Your task to perform on an android device: Show the shopping cart on bestbuy.com. Image 0: 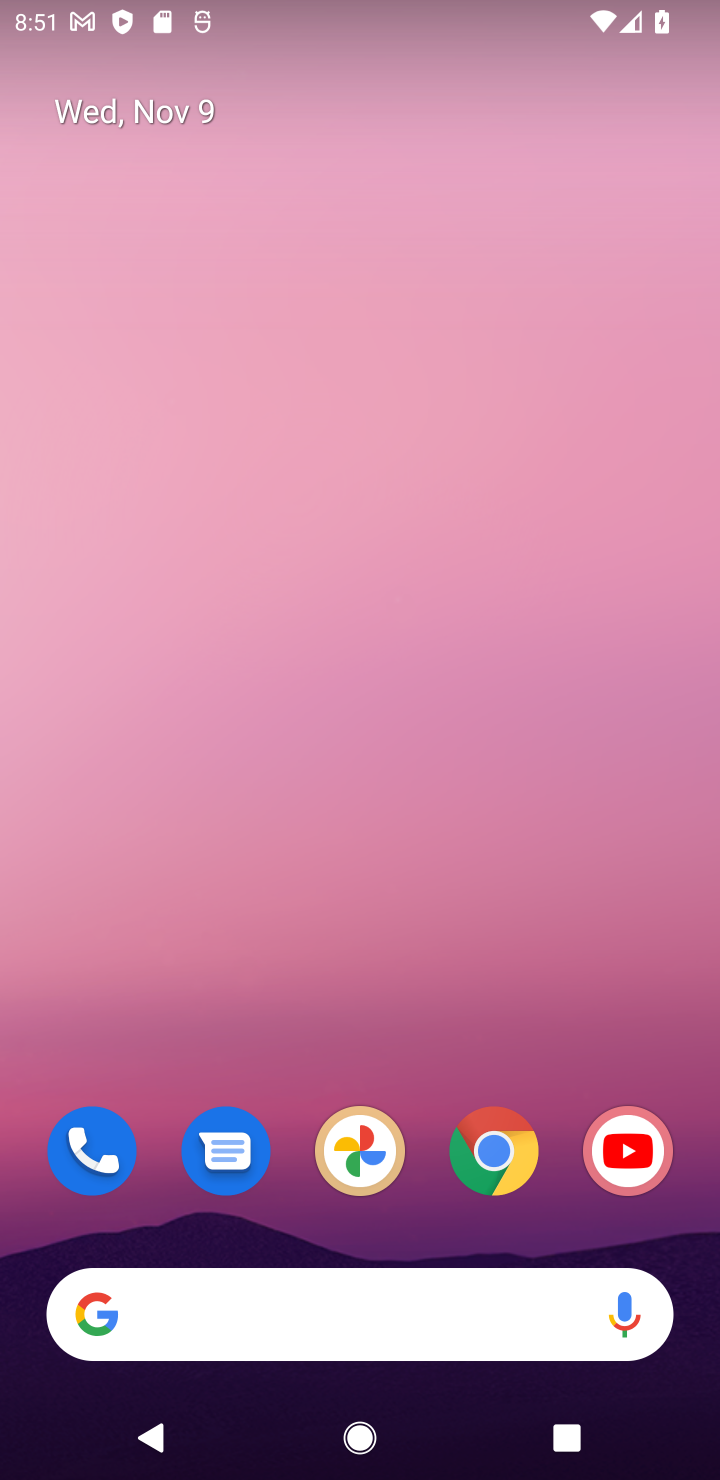
Step 0: click (494, 1162)
Your task to perform on an android device: Show the shopping cart on bestbuy.com. Image 1: 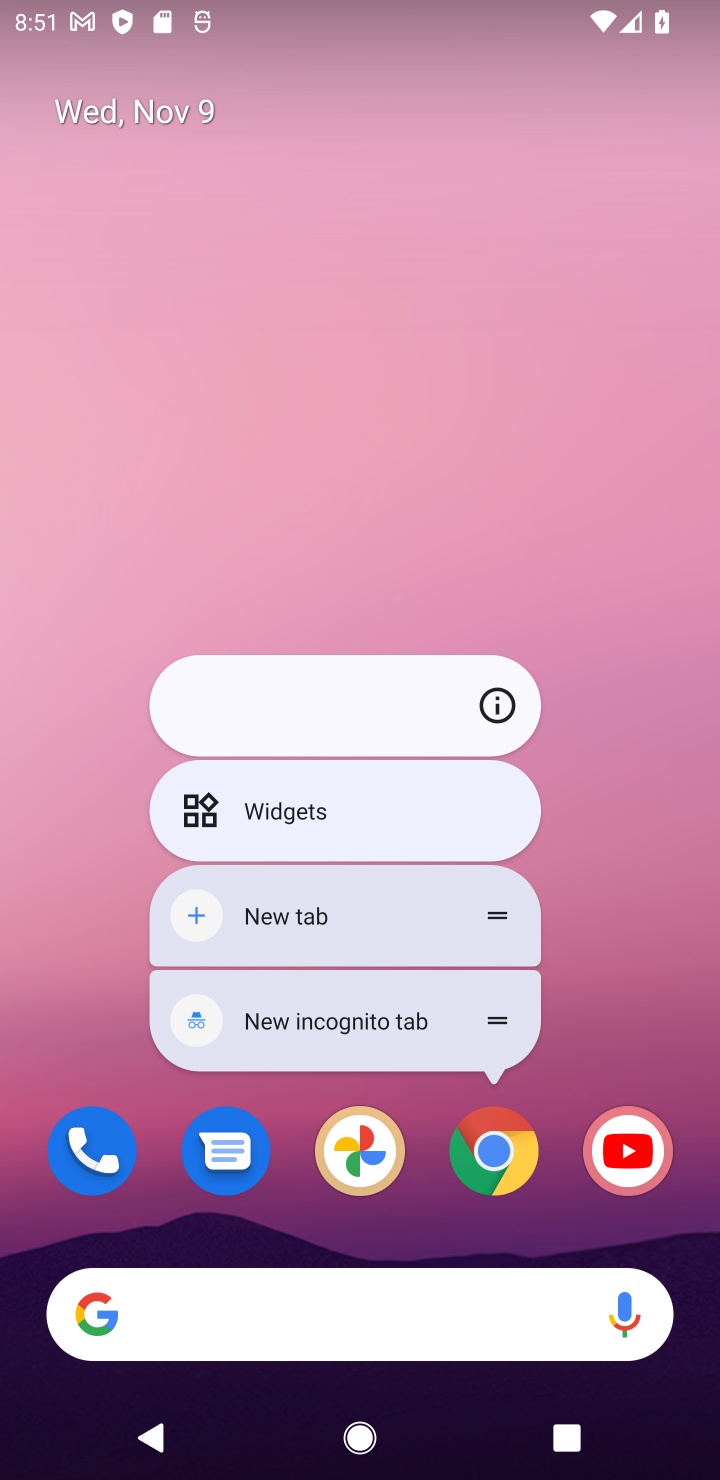
Step 1: click (507, 1181)
Your task to perform on an android device: Show the shopping cart on bestbuy.com. Image 2: 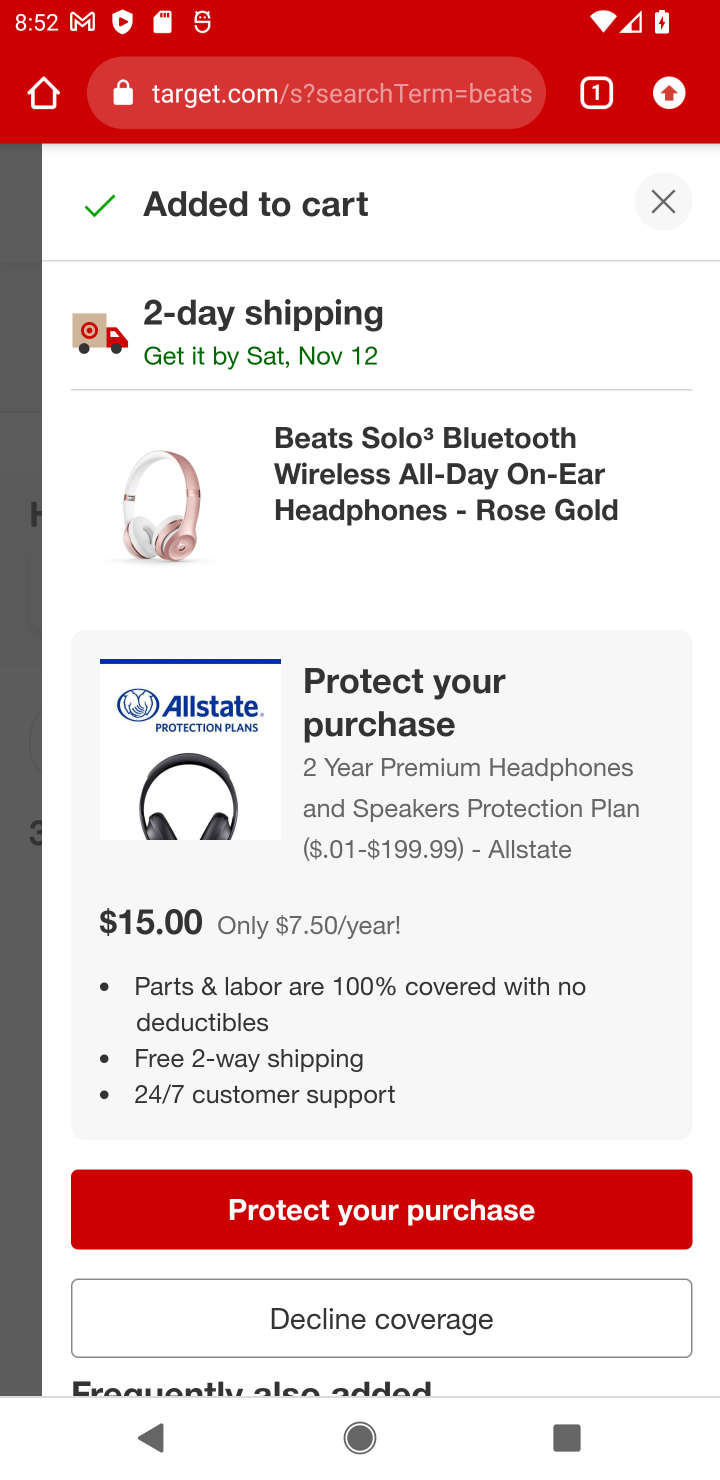
Step 2: click (342, 94)
Your task to perform on an android device: Show the shopping cart on bestbuy.com. Image 3: 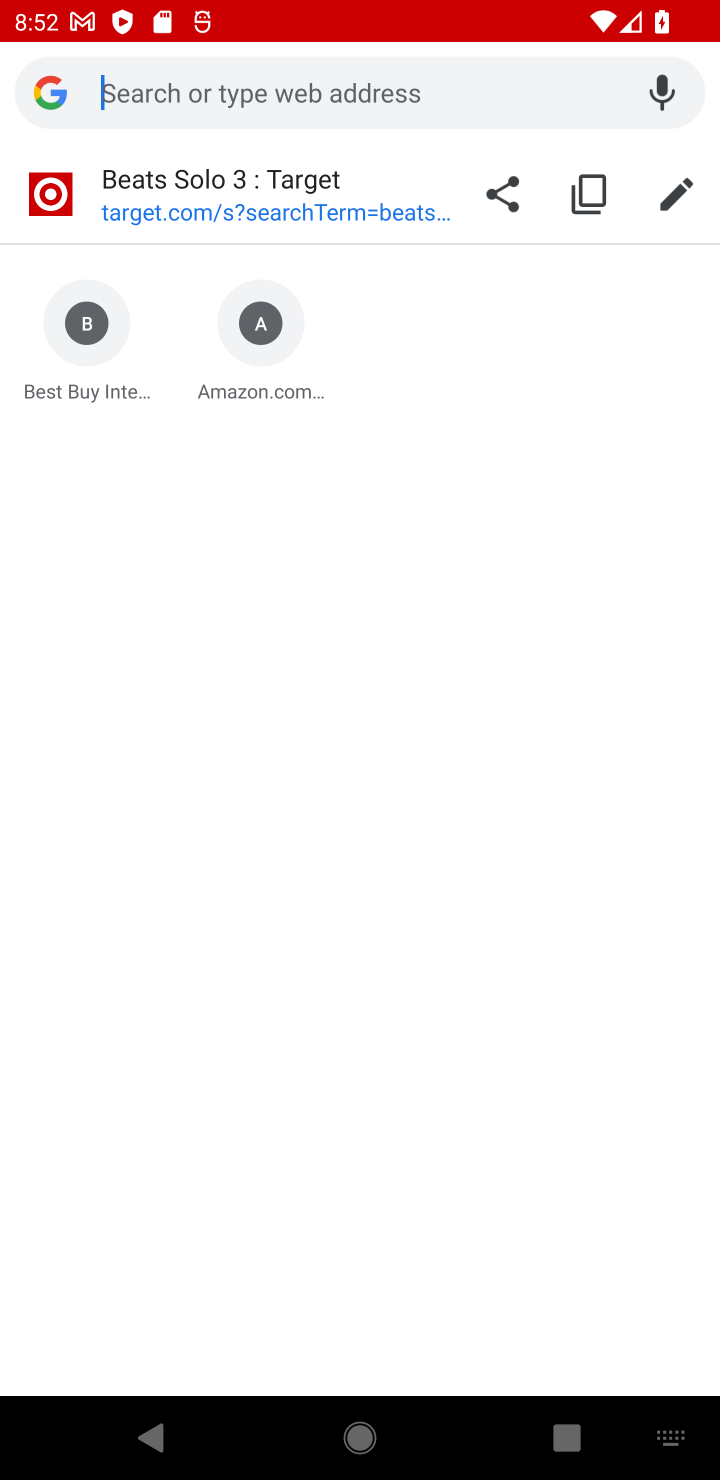
Step 3: type "bestbuy.com"
Your task to perform on an android device: Show the shopping cart on bestbuy.com. Image 4: 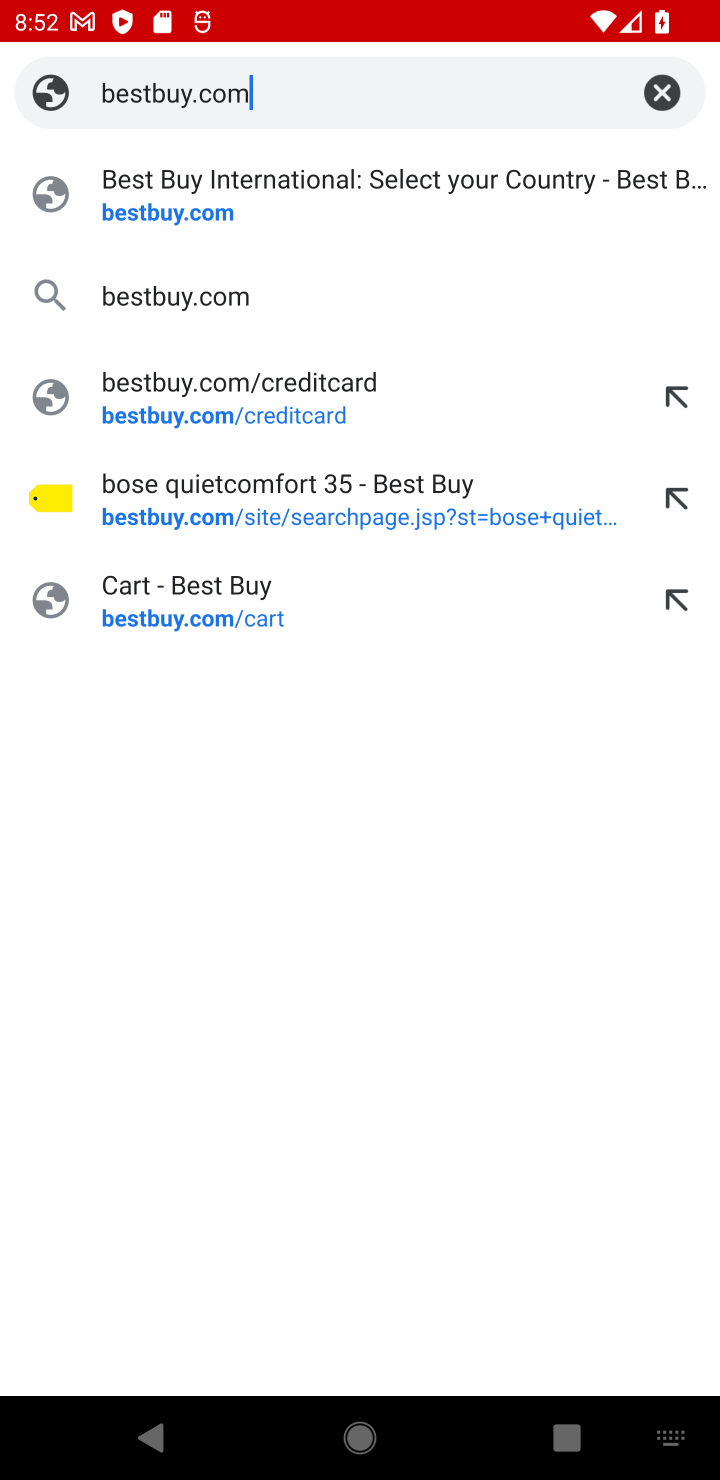
Step 4: press enter
Your task to perform on an android device: Show the shopping cart on bestbuy.com. Image 5: 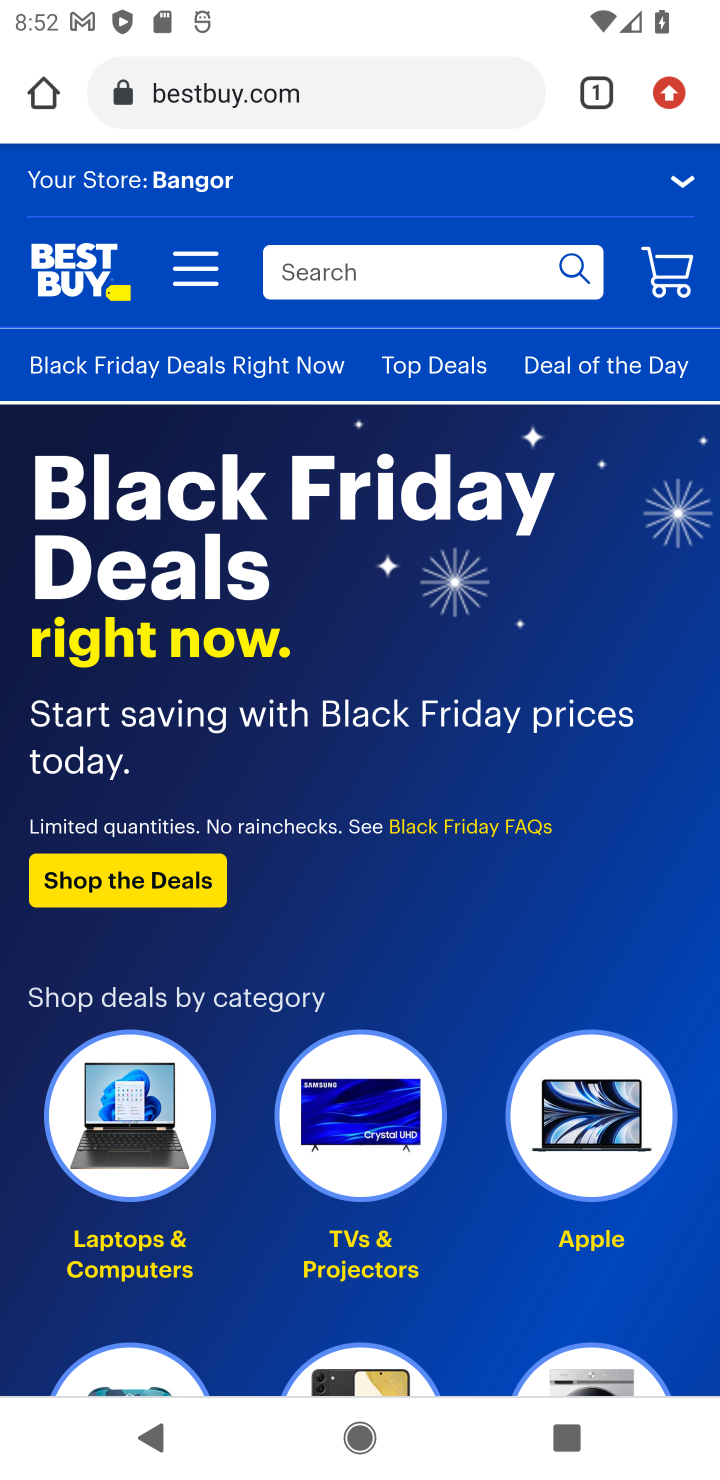
Step 5: click (658, 264)
Your task to perform on an android device: Show the shopping cart on bestbuy.com. Image 6: 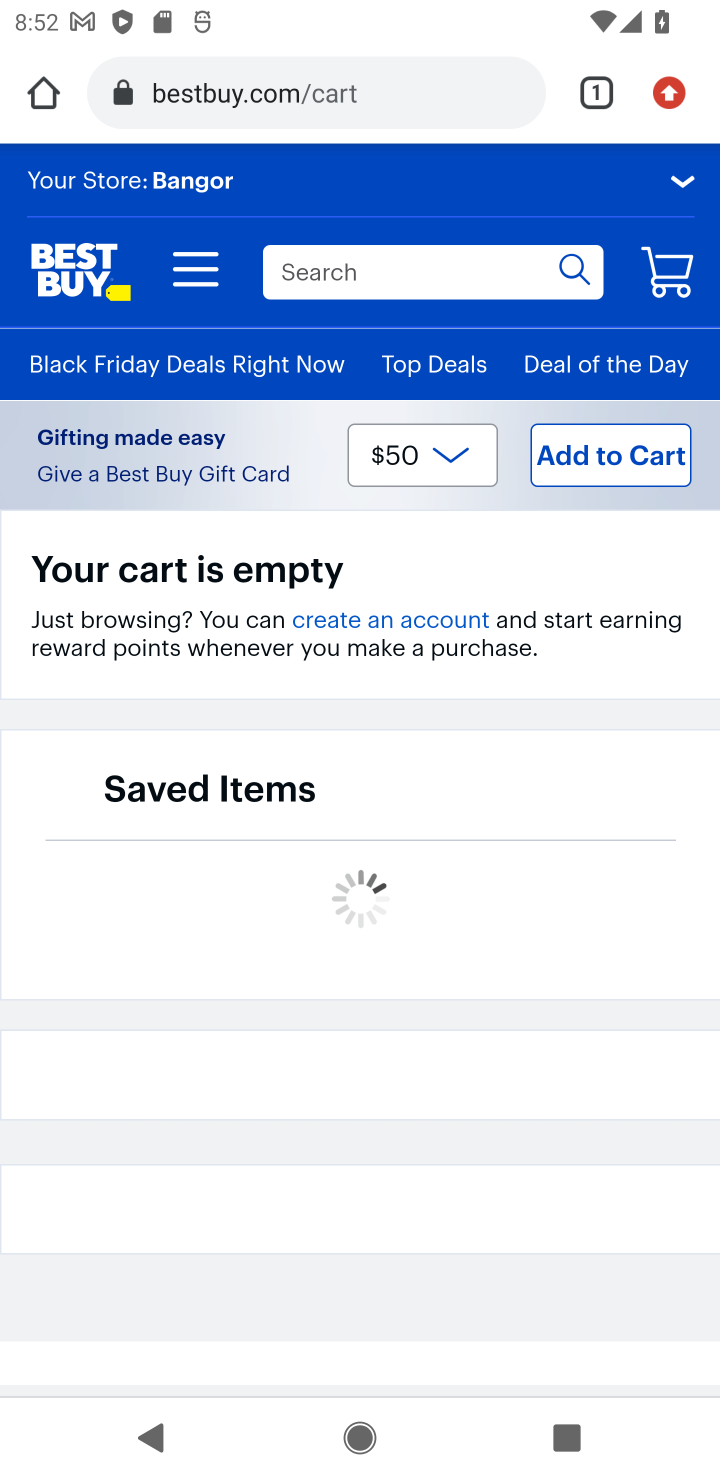
Step 6: task complete